Your task to perform on an android device: add a contact in the contacts app Image 0: 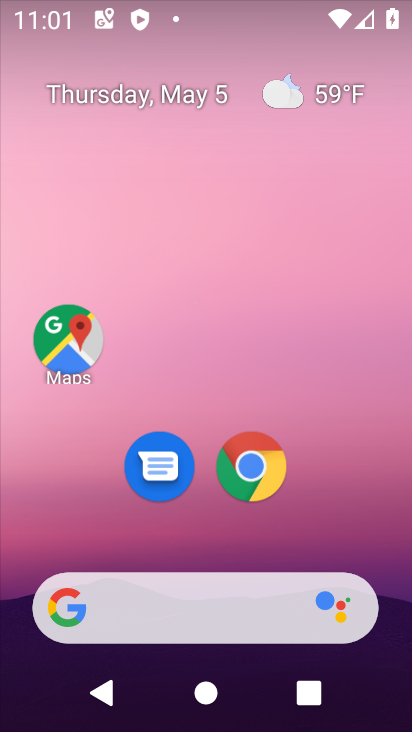
Step 0: drag from (343, 504) to (271, 73)
Your task to perform on an android device: add a contact in the contacts app Image 1: 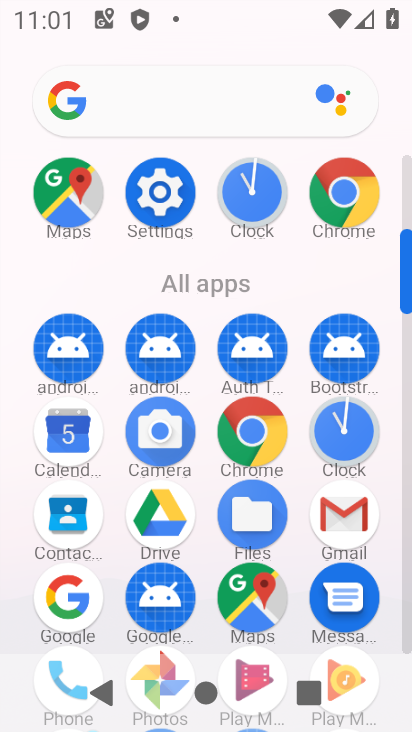
Step 1: click (68, 513)
Your task to perform on an android device: add a contact in the contacts app Image 2: 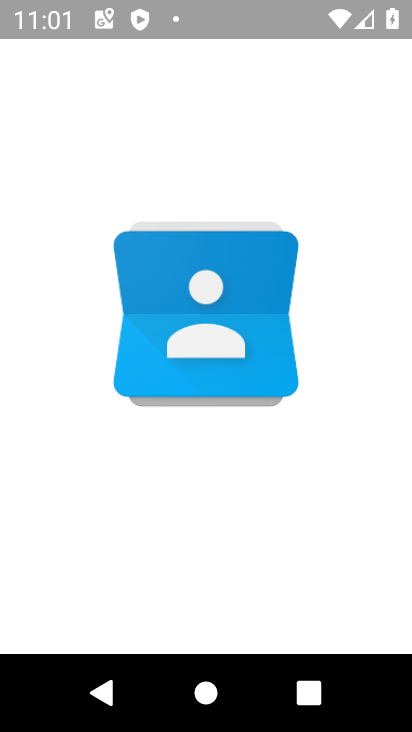
Step 2: click (68, 513)
Your task to perform on an android device: add a contact in the contacts app Image 3: 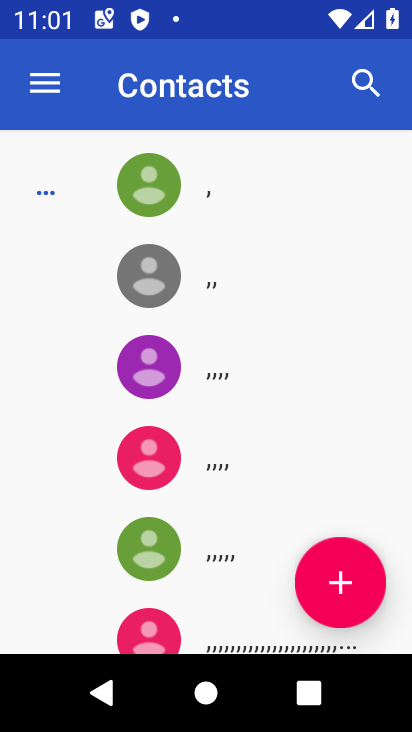
Step 3: click (348, 549)
Your task to perform on an android device: add a contact in the contacts app Image 4: 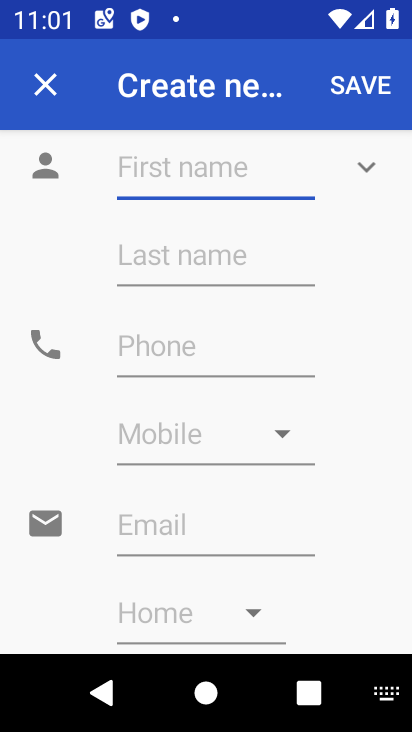
Step 4: type "sdsdgt"
Your task to perform on an android device: add a contact in the contacts app Image 5: 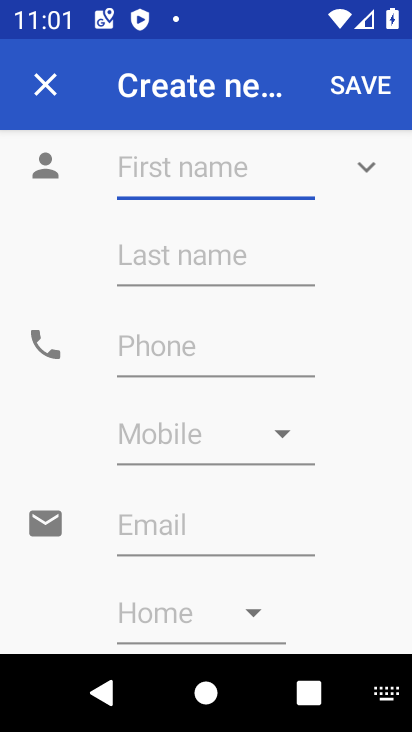
Step 5: click (241, 358)
Your task to perform on an android device: add a contact in the contacts app Image 6: 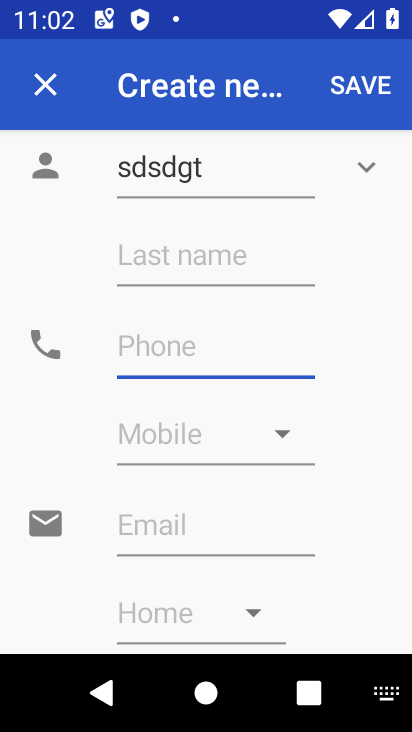
Step 6: click (380, 81)
Your task to perform on an android device: add a contact in the contacts app Image 7: 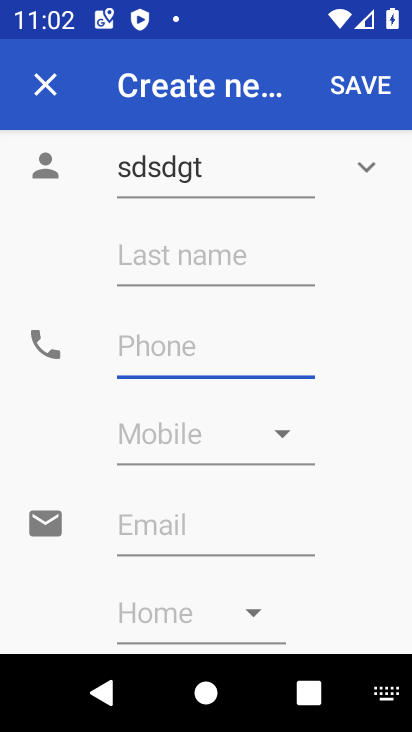
Step 7: type "6655566655"
Your task to perform on an android device: add a contact in the contacts app Image 8: 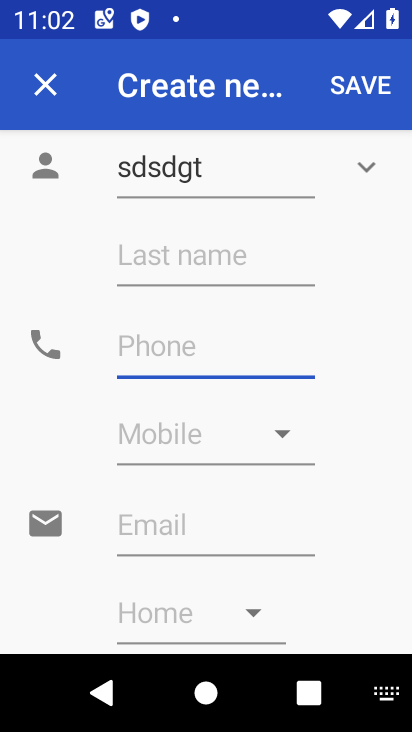
Step 8: click (378, 80)
Your task to perform on an android device: add a contact in the contacts app Image 9: 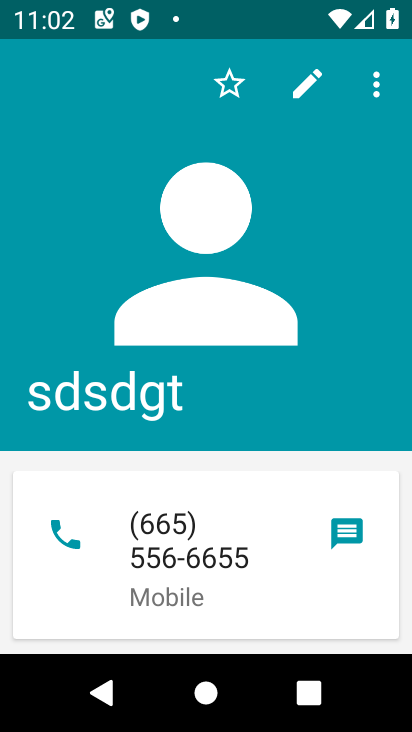
Step 9: task complete